Your task to perform on an android device: see tabs open on other devices in the chrome app Image 0: 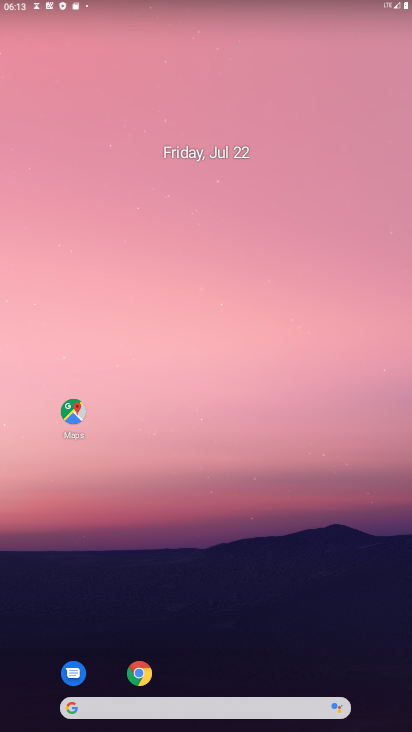
Step 0: press home button
Your task to perform on an android device: see tabs open on other devices in the chrome app Image 1: 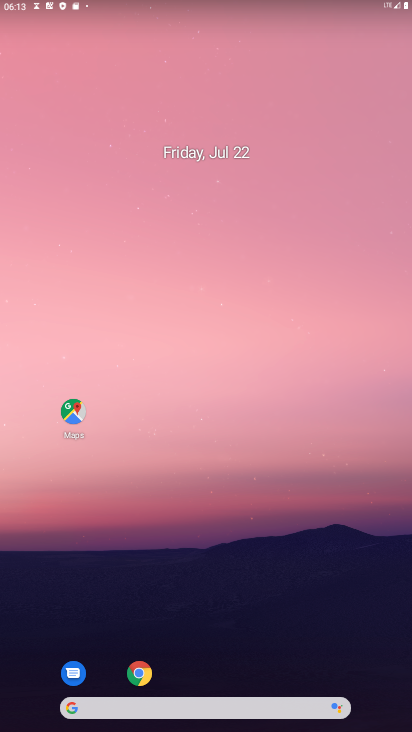
Step 1: drag from (233, 678) to (208, 143)
Your task to perform on an android device: see tabs open on other devices in the chrome app Image 2: 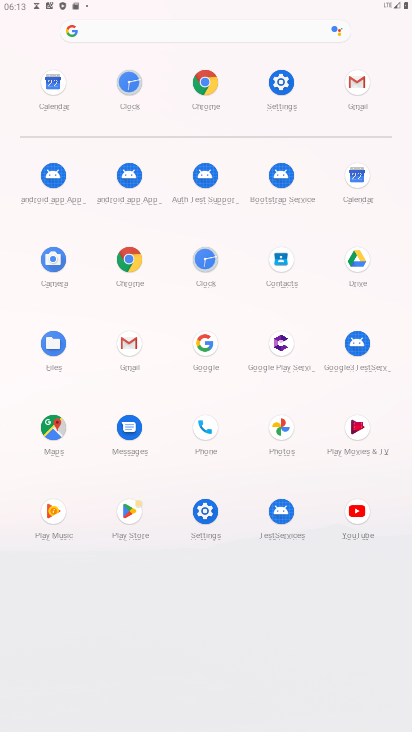
Step 2: click (205, 83)
Your task to perform on an android device: see tabs open on other devices in the chrome app Image 3: 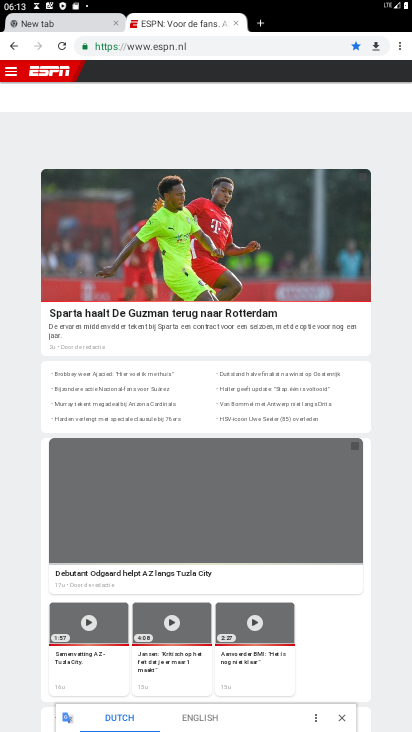
Step 3: task complete